Your task to perform on an android device: open sync settings in chrome Image 0: 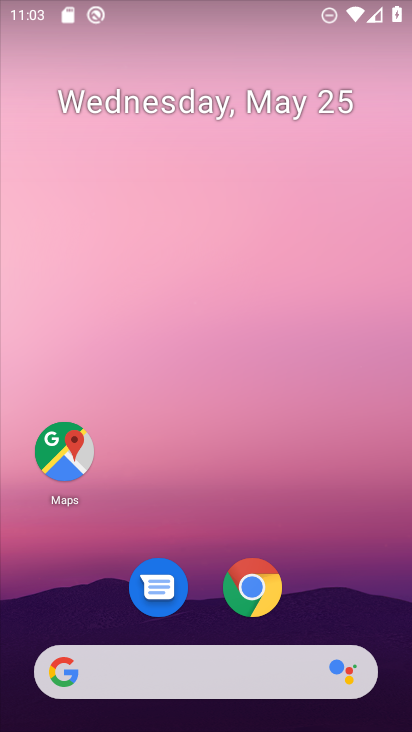
Step 0: drag from (313, 589) to (187, 3)
Your task to perform on an android device: open sync settings in chrome Image 1: 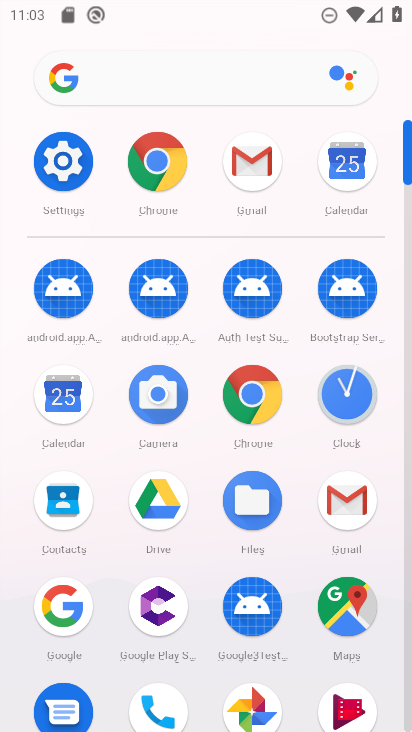
Step 1: drag from (3, 622) to (2, 200)
Your task to perform on an android device: open sync settings in chrome Image 2: 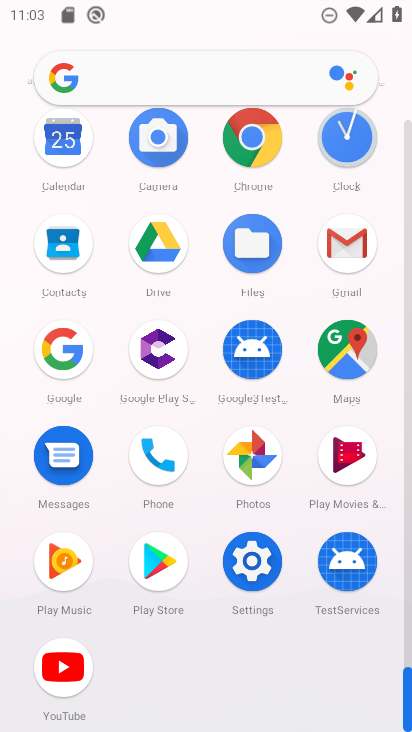
Step 2: click (250, 133)
Your task to perform on an android device: open sync settings in chrome Image 3: 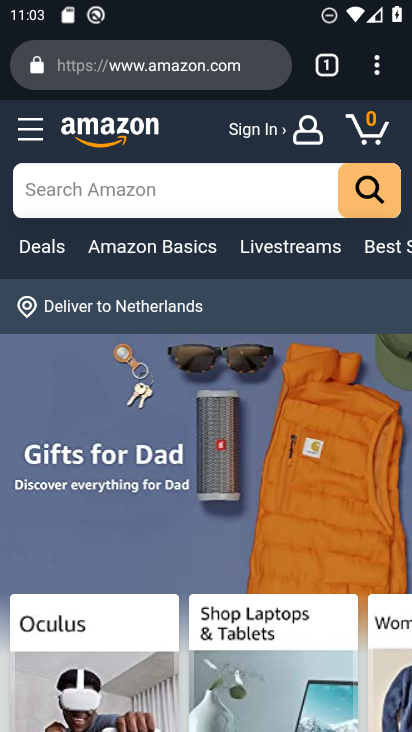
Step 3: drag from (370, 54) to (137, 631)
Your task to perform on an android device: open sync settings in chrome Image 4: 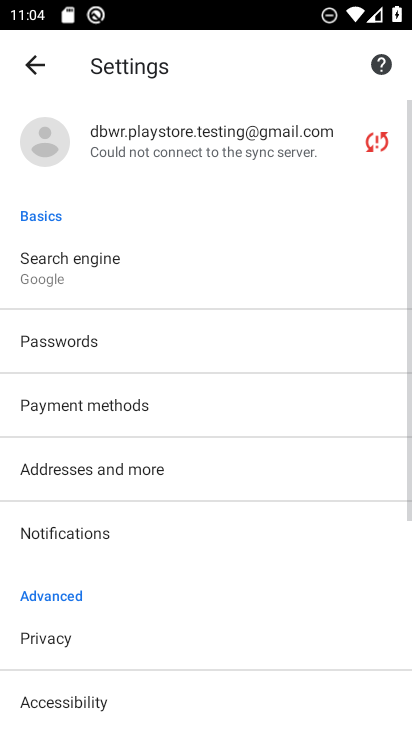
Step 4: click (166, 132)
Your task to perform on an android device: open sync settings in chrome Image 5: 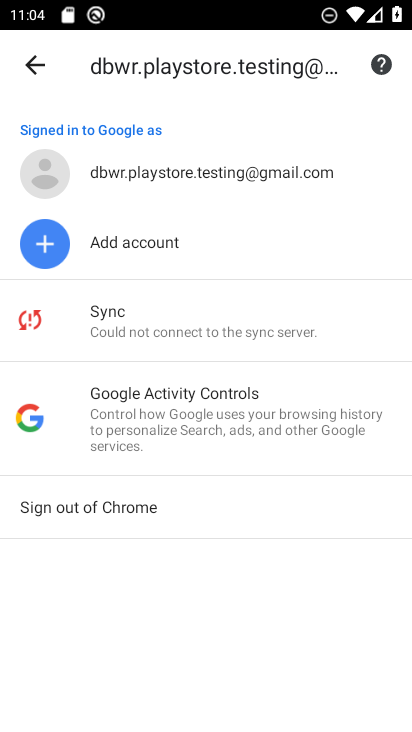
Step 5: click (148, 341)
Your task to perform on an android device: open sync settings in chrome Image 6: 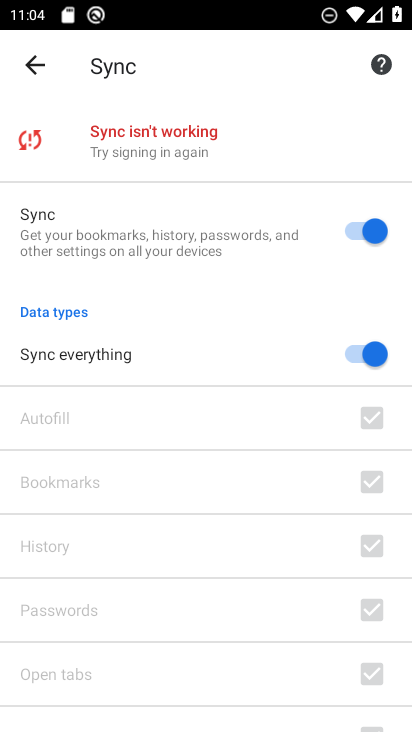
Step 6: task complete